Your task to perform on an android device: find snoozed emails in the gmail app Image 0: 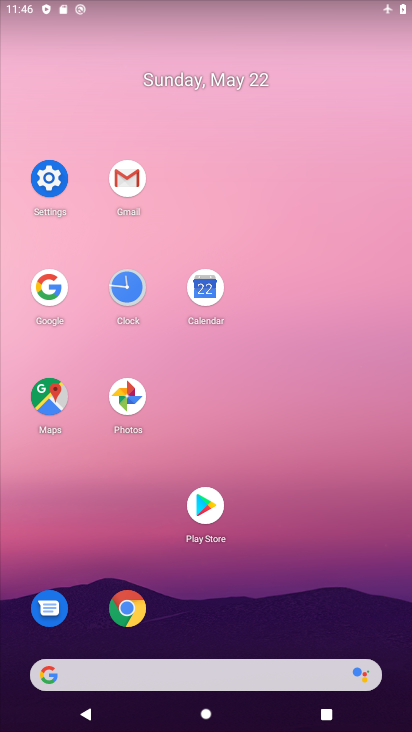
Step 0: click (138, 193)
Your task to perform on an android device: find snoozed emails in the gmail app Image 1: 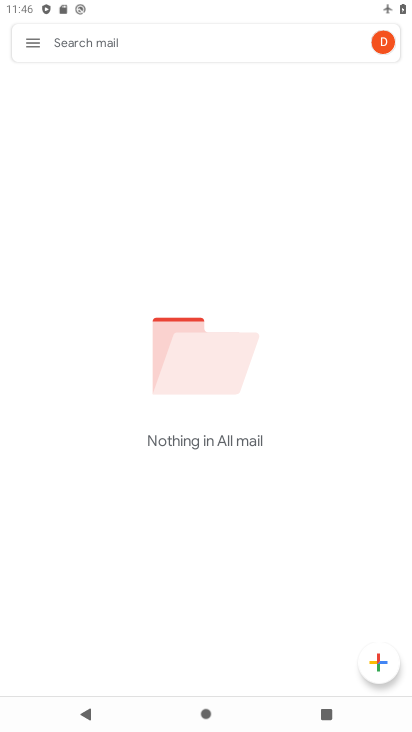
Step 1: click (27, 42)
Your task to perform on an android device: find snoozed emails in the gmail app Image 2: 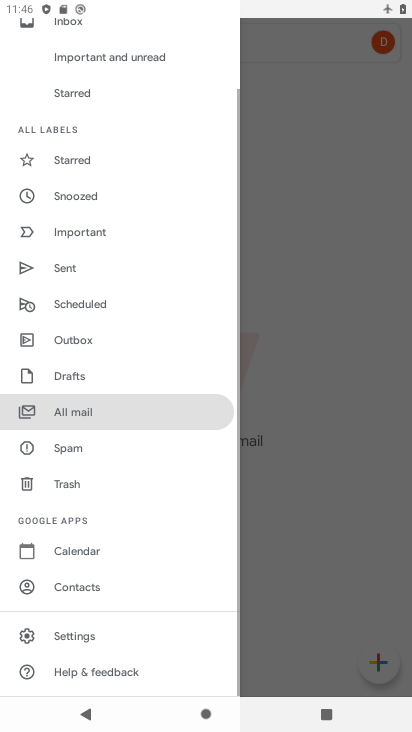
Step 2: drag from (149, 134) to (152, 275)
Your task to perform on an android device: find snoozed emails in the gmail app Image 3: 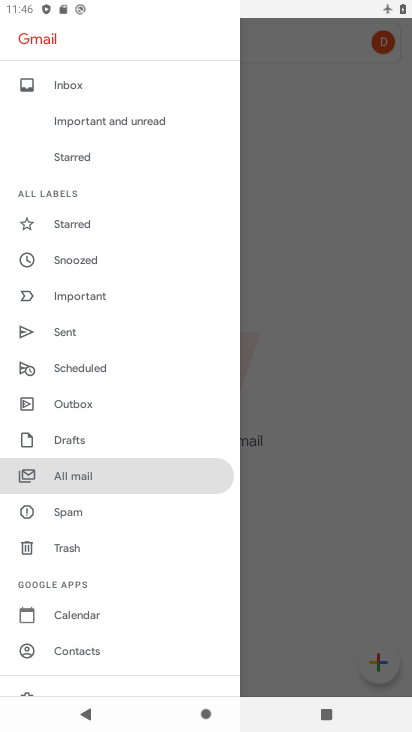
Step 3: click (118, 262)
Your task to perform on an android device: find snoozed emails in the gmail app Image 4: 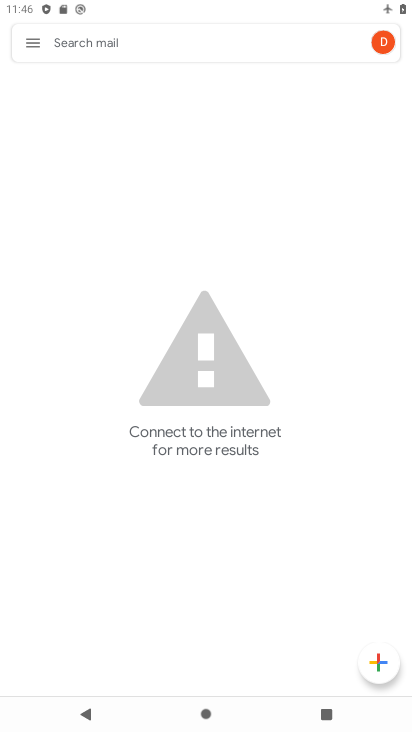
Step 4: task complete